Your task to perform on an android device: toggle notification dots Image 0: 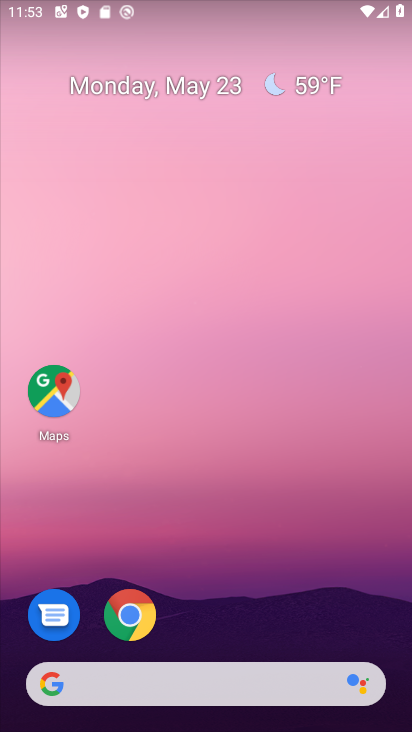
Step 0: drag from (246, 562) to (249, 21)
Your task to perform on an android device: toggle notification dots Image 1: 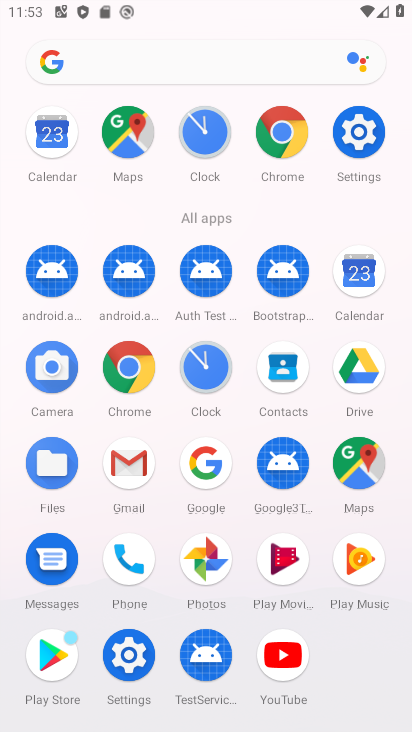
Step 1: drag from (9, 541) to (8, 237)
Your task to perform on an android device: toggle notification dots Image 2: 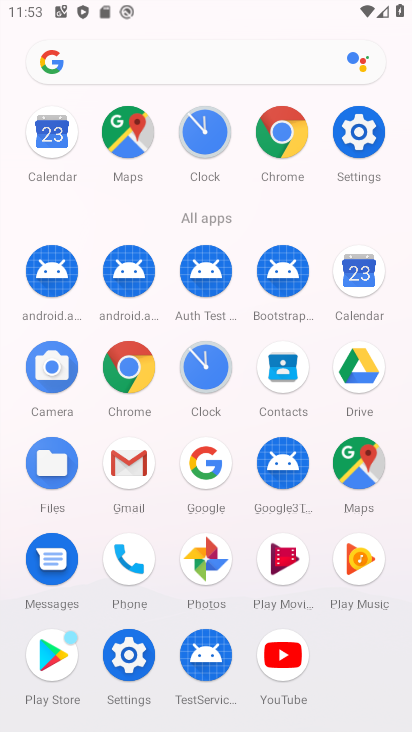
Step 2: click (131, 653)
Your task to perform on an android device: toggle notification dots Image 3: 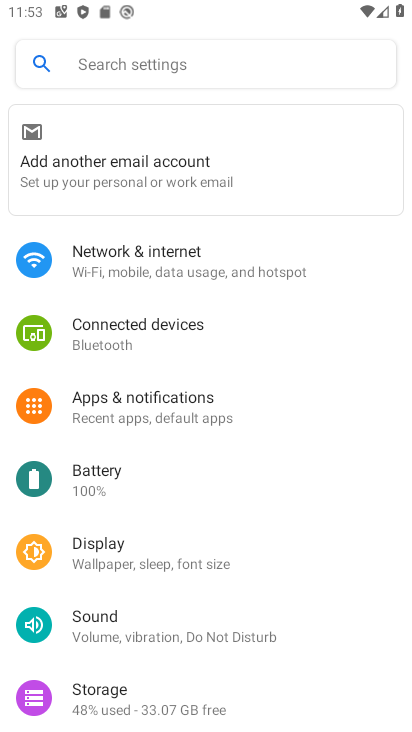
Step 3: drag from (302, 556) to (308, 149)
Your task to perform on an android device: toggle notification dots Image 4: 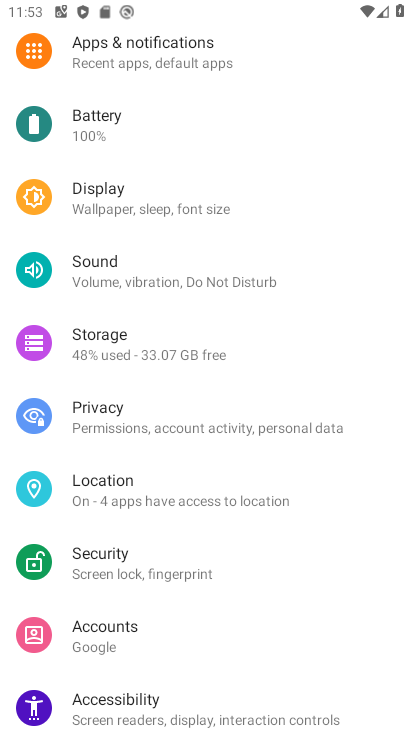
Step 4: click (192, 45)
Your task to perform on an android device: toggle notification dots Image 5: 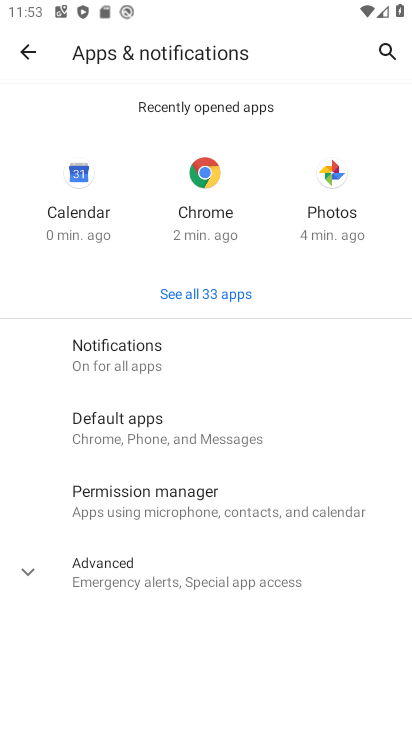
Step 5: click (33, 571)
Your task to perform on an android device: toggle notification dots Image 6: 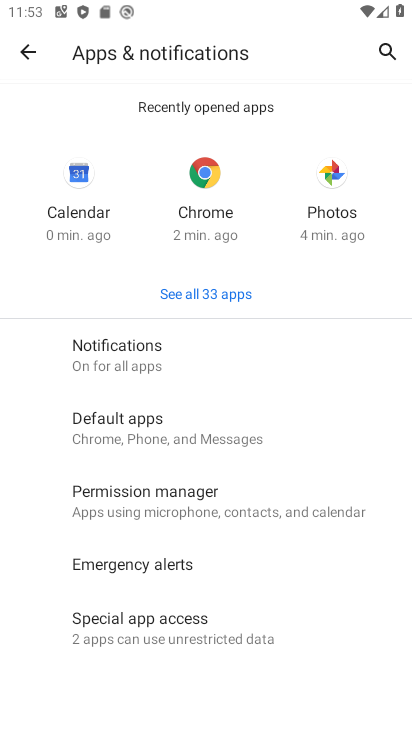
Step 6: click (166, 368)
Your task to perform on an android device: toggle notification dots Image 7: 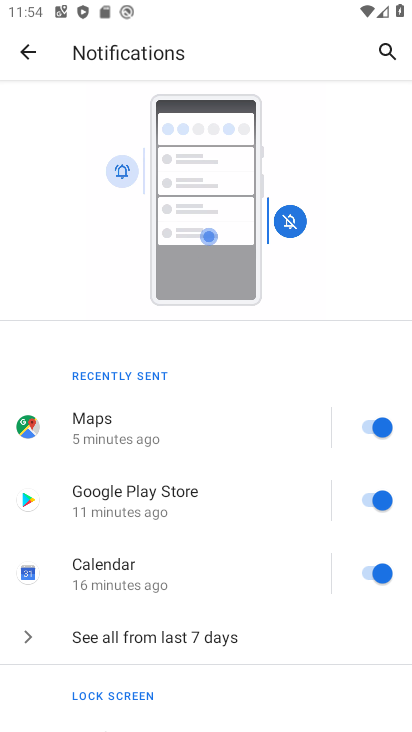
Step 7: drag from (220, 610) to (268, 110)
Your task to perform on an android device: toggle notification dots Image 8: 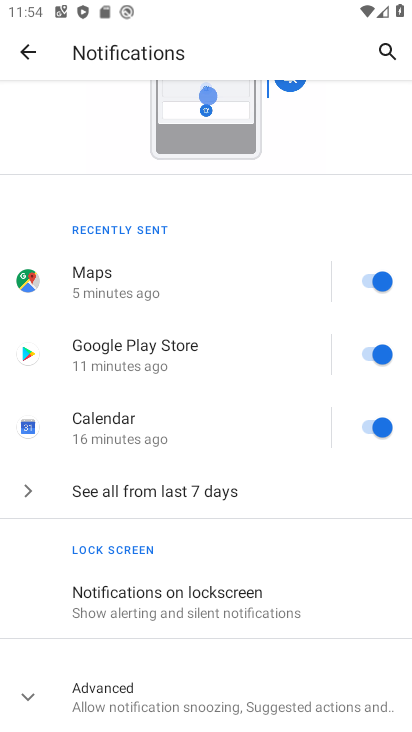
Step 8: click (142, 687)
Your task to perform on an android device: toggle notification dots Image 9: 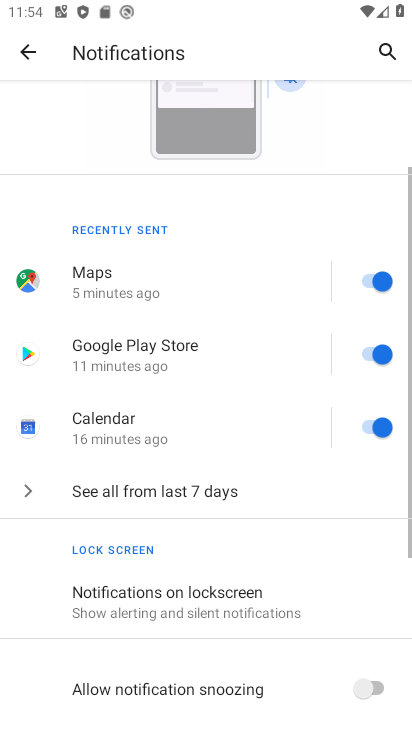
Step 9: drag from (224, 591) to (224, 222)
Your task to perform on an android device: toggle notification dots Image 10: 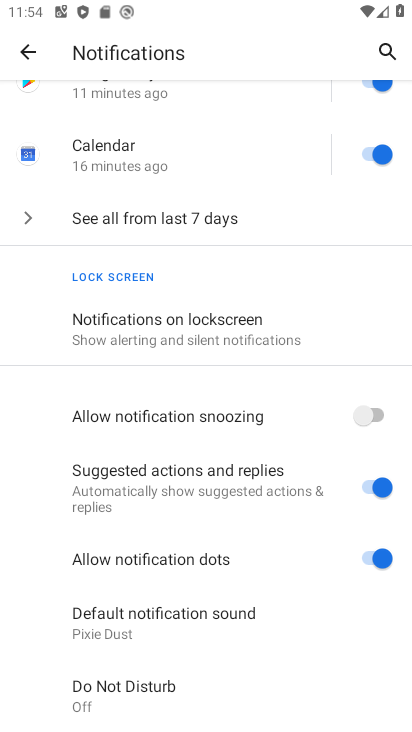
Step 10: click (358, 559)
Your task to perform on an android device: toggle notification dots Image 11: 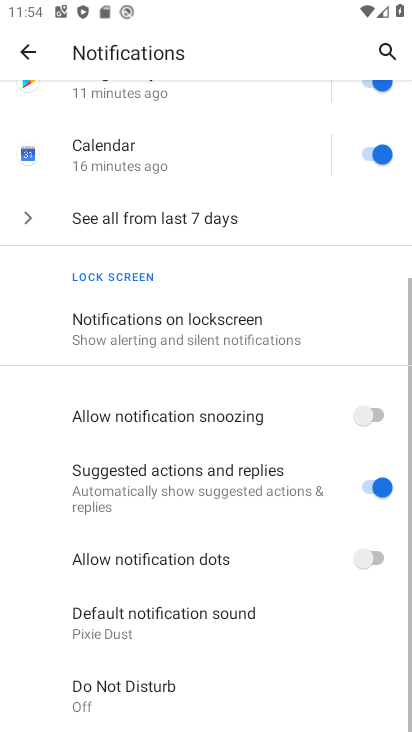
Step 11: task complete